Your task to perform on an android device: check battery use Image 0: 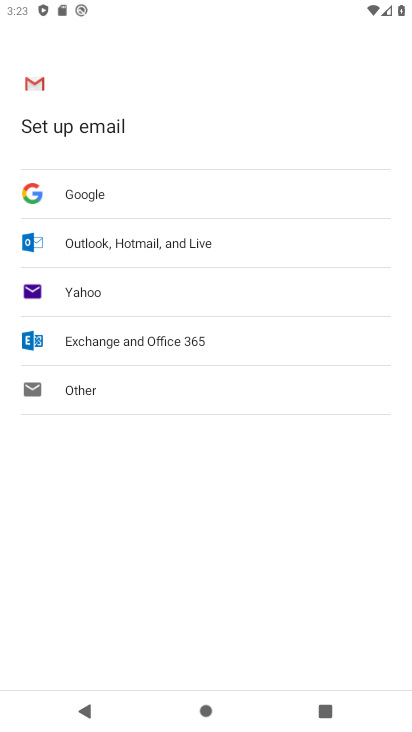
Step 0: press home button
Your task to perform on an android device: check battery use Image 1: 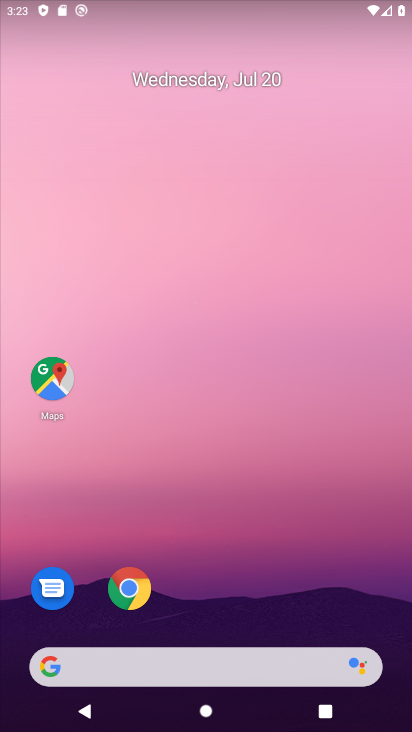
Step 1: drag from (262, 560) to (223, 173)
Your task to perform on an android device: check battery use Image 2: 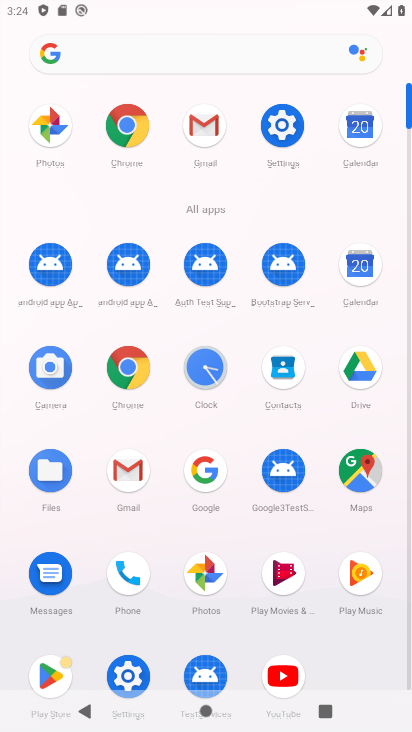
Step 2: click (278, 125)
Your task to perform on an android device: check battery use Image 3: 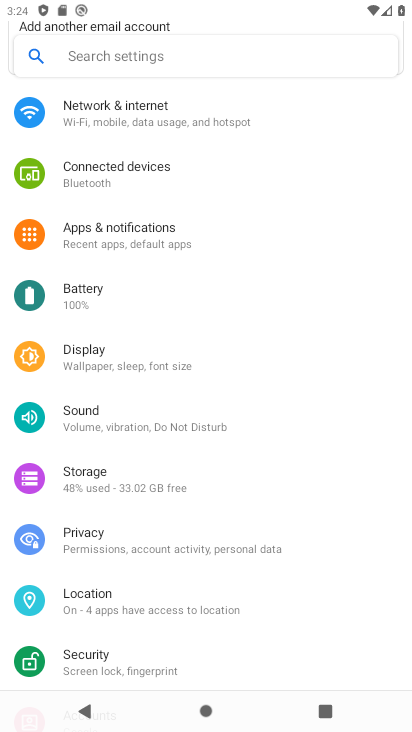
Step 3: click (71, 269)
Your task to perform on an android device: check battery use Image 4: 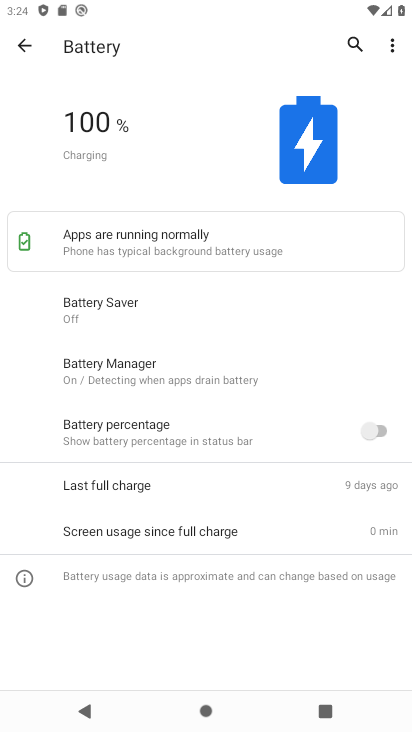
Step 4: click (396, 42)
Your task to perform on an android device: check battery use Image 5: 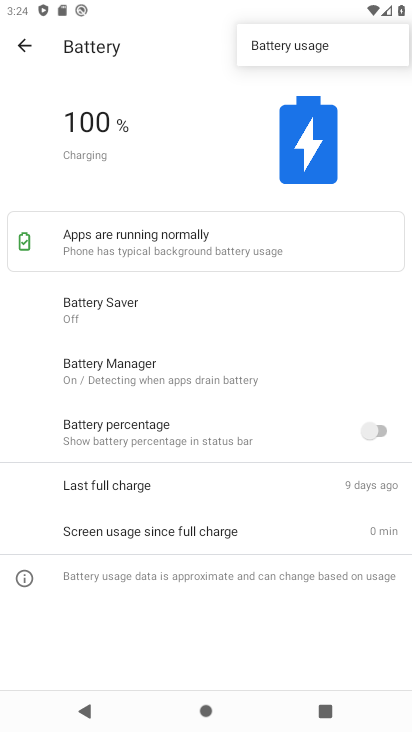
Step 5: click (358, 50)
Your task to perform on an android device: check battery use Image 6: 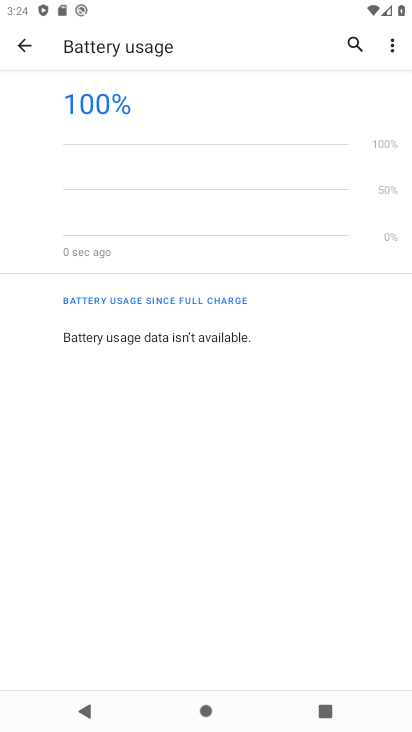
Step 6: task complete